Your task to perform on an android device: Clear the cart on bestbuy. Image 0: 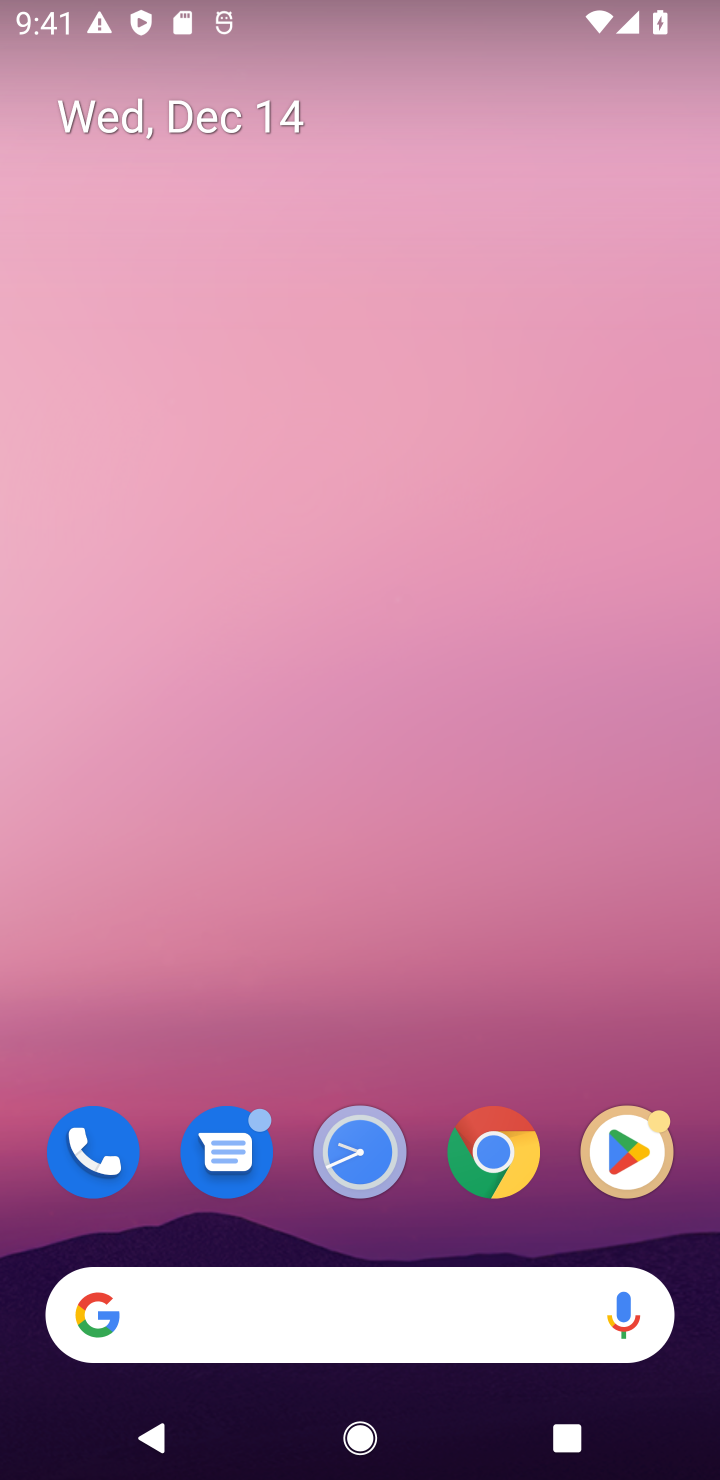
Step 0: press home button
Your task to perform on an android device: Clear the cart on bestbuy. Image 1: 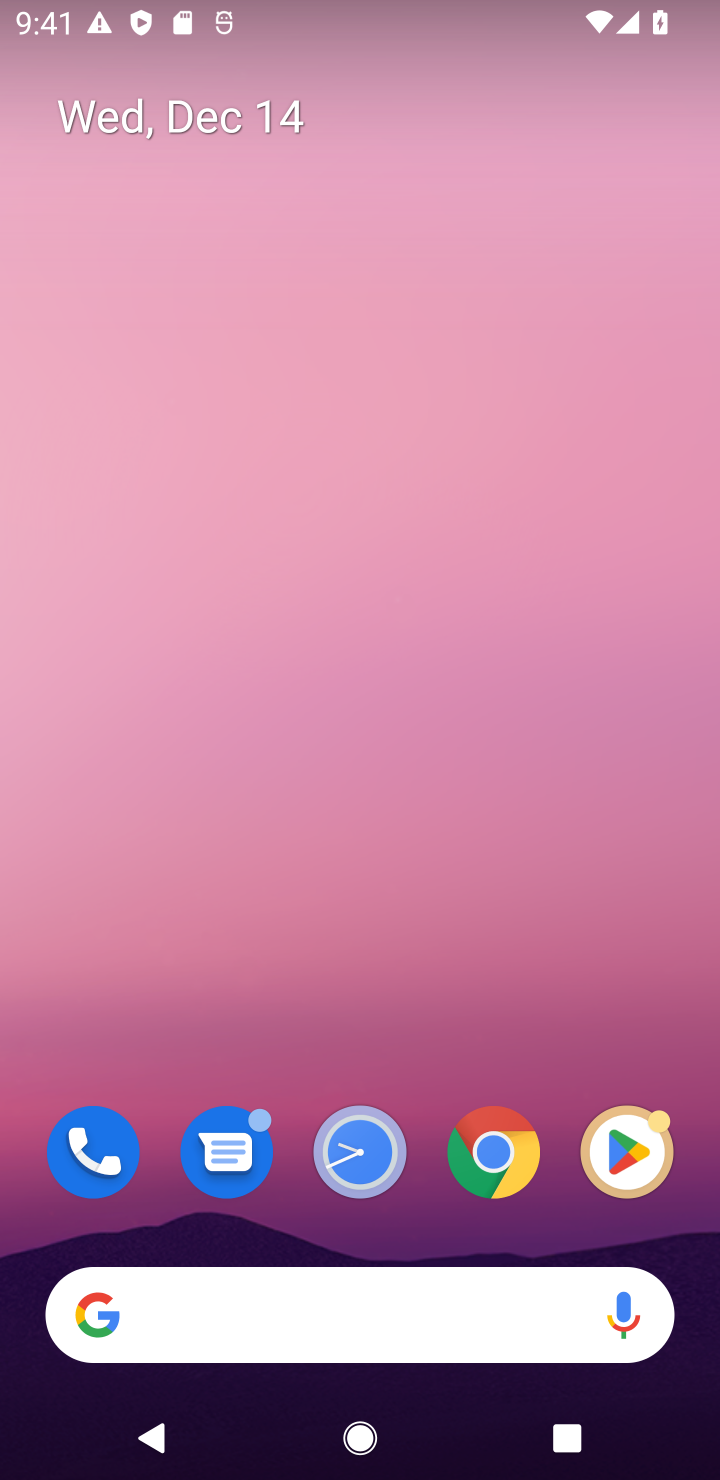
Step 1: drag from (295, 1286) to (355, 319)
Your task to perform on an android device: Clear the cart on bestbuy. Image 2: 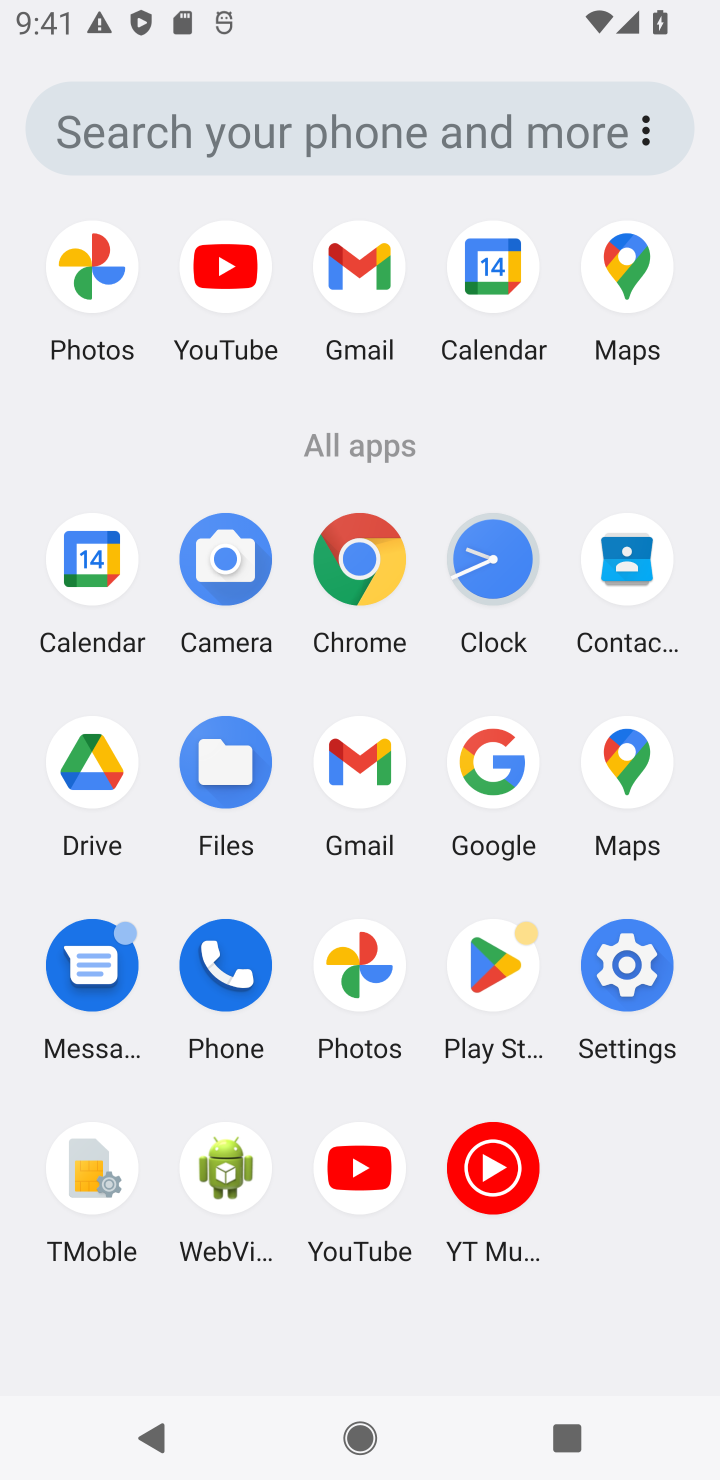
Step 2: click (489, 763)
Your task to perform on an android device: Clear the cart on bestbuy. Image 3: 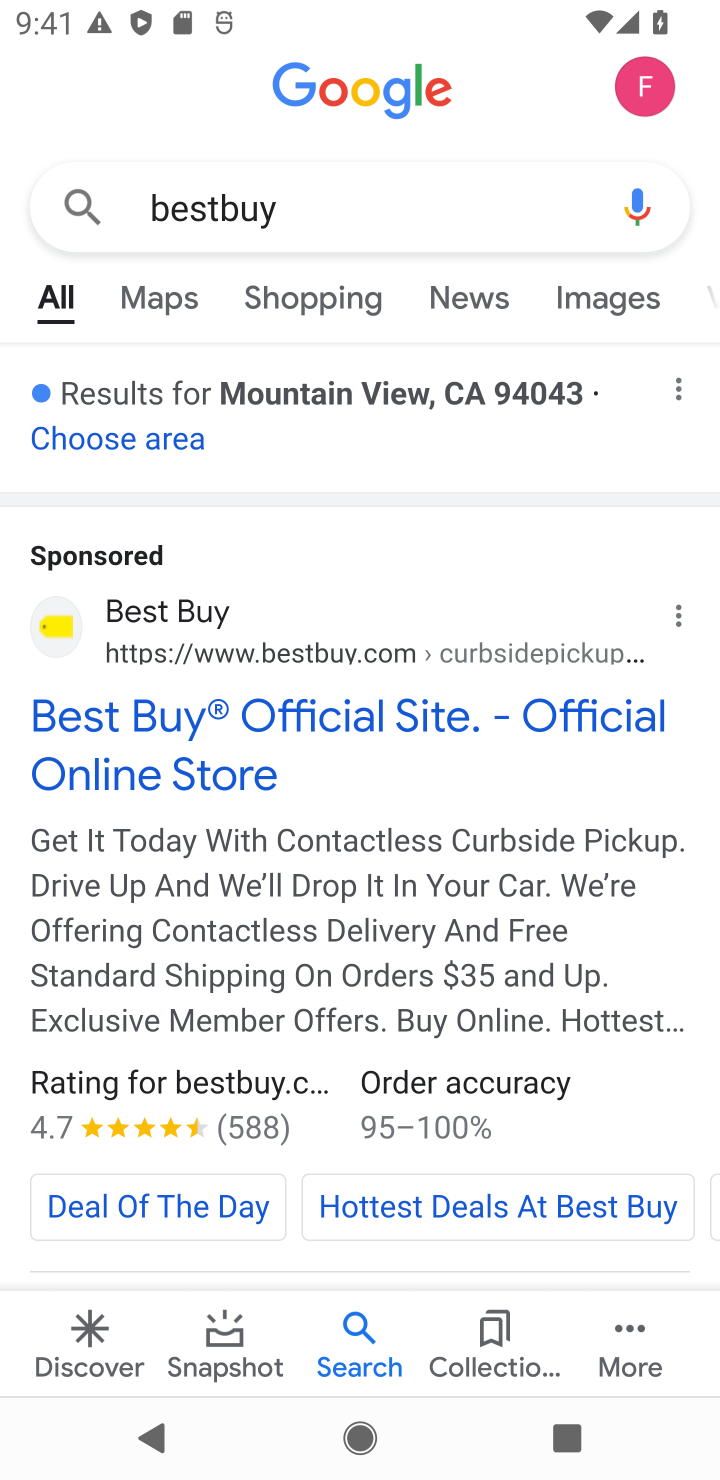
Step 3: click (197, 725)
Your task to perform on an android device: Clear the cart on bestbuy. Image 4: 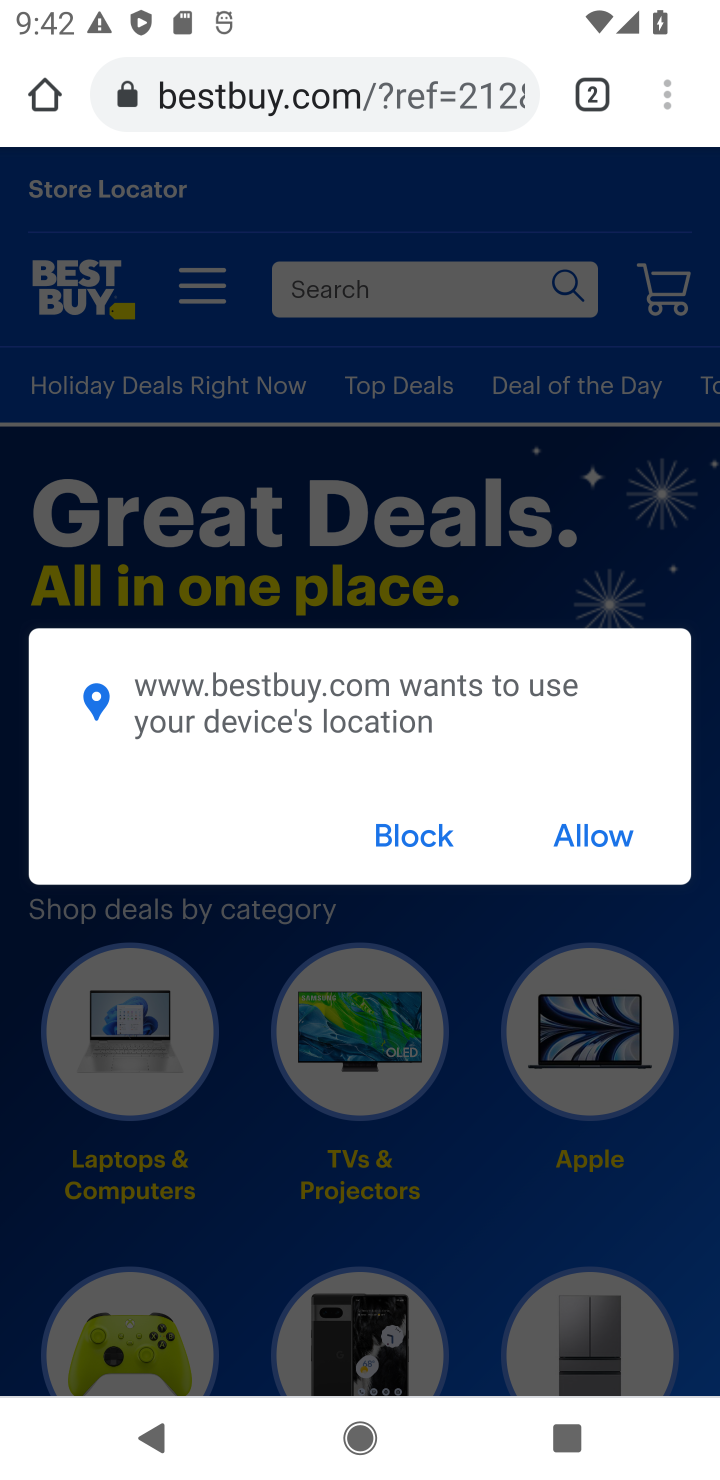
Step 4: click (576, 827)
Your task to perform on an android device: Clear the cart on bestbuy. Image 5: 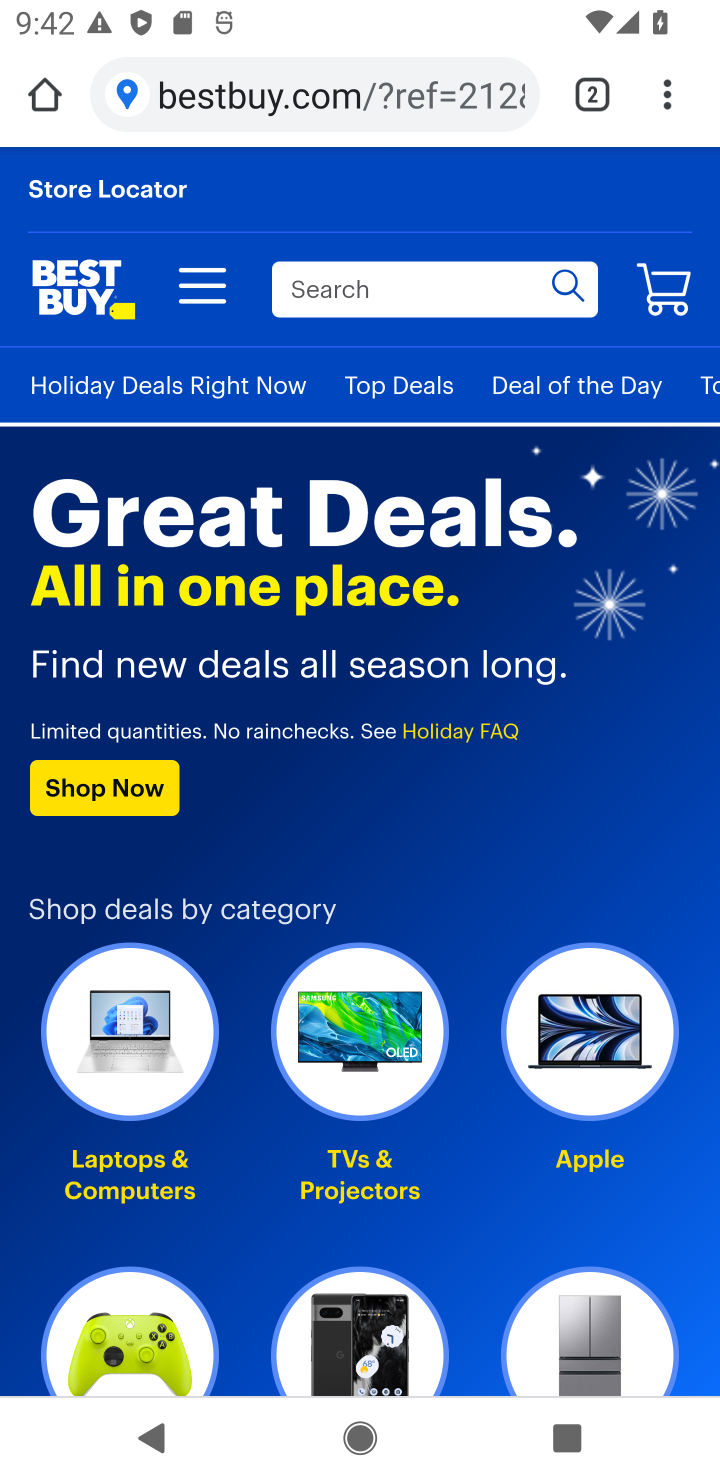
Step 5: click (680, 290)
Your task to perform on an android device: Clear the cart on bestbuy. Image 6: 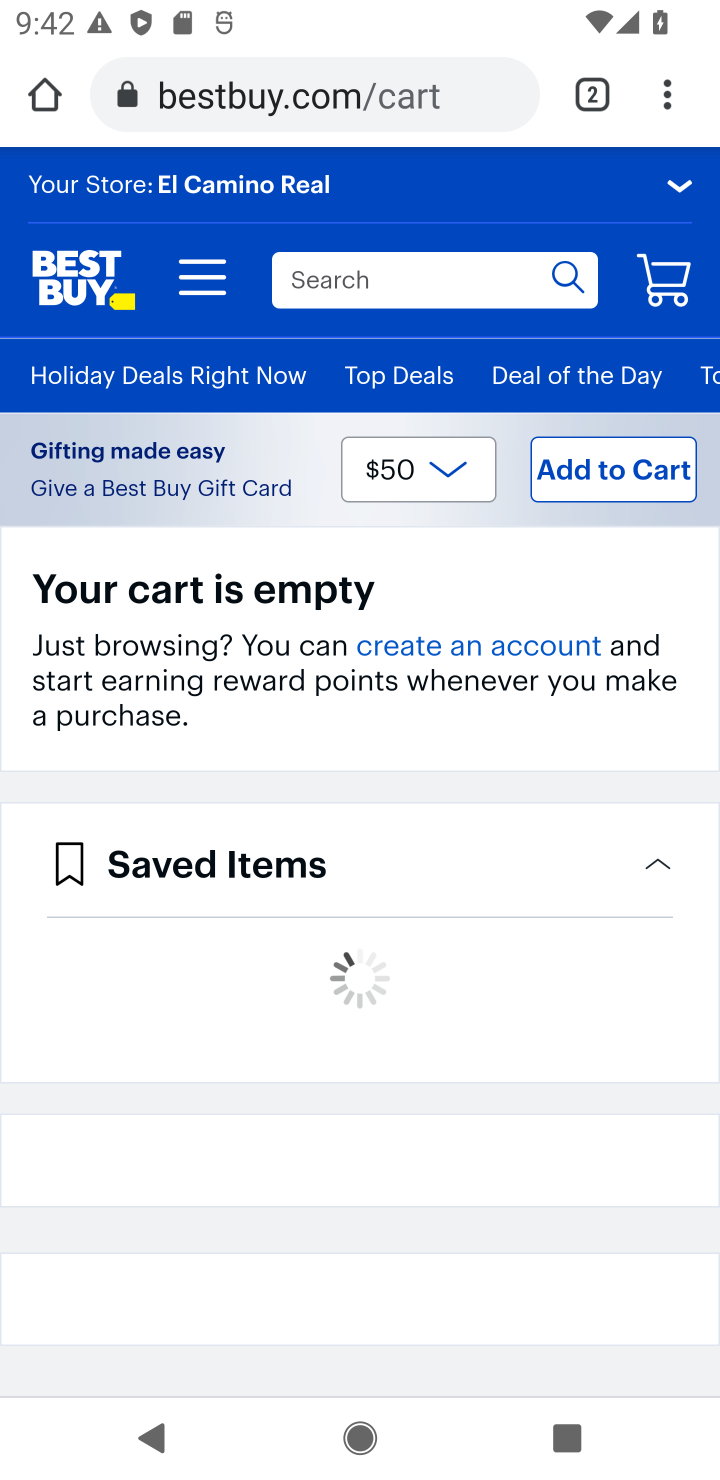
Step 6: task complete